Your task to perform on an android device: open wifi settings Image 0: 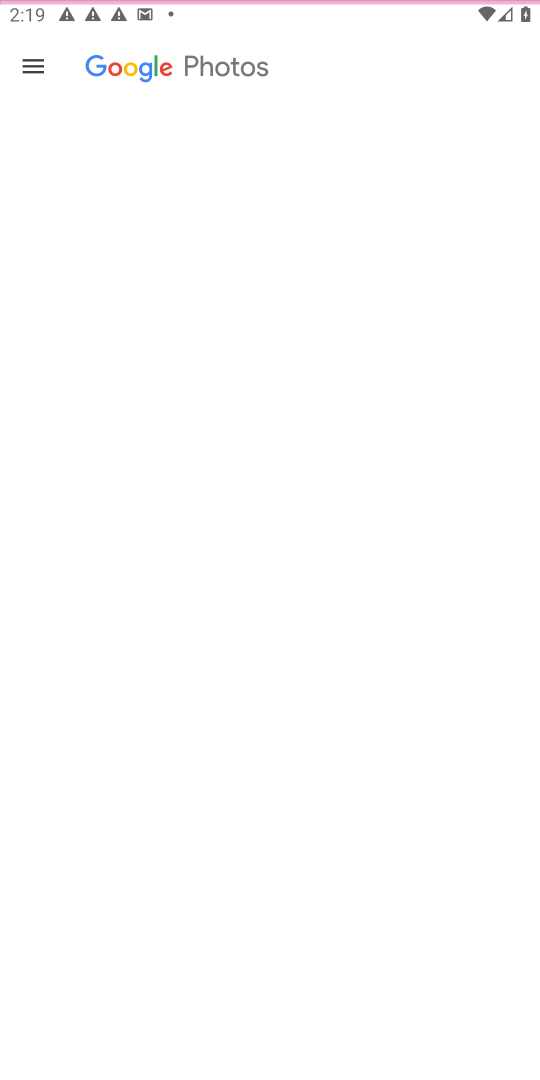
Step 0: click (306, 679)
Your task to perform on an android device: open wifi settings Image 1: 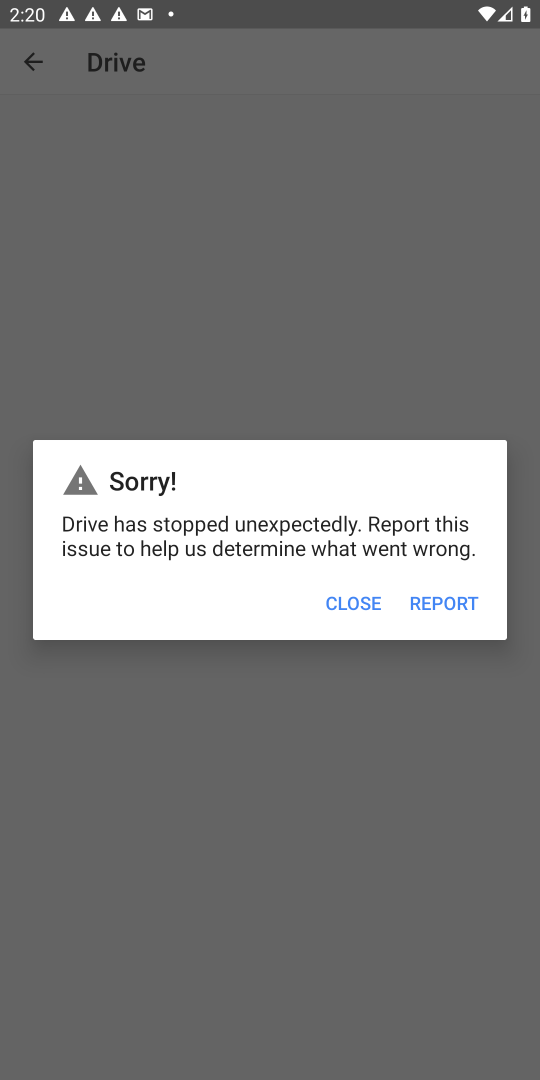
Step 1: click (342, 597)
Your task to perform on an android device: open wifi settings Image 2: 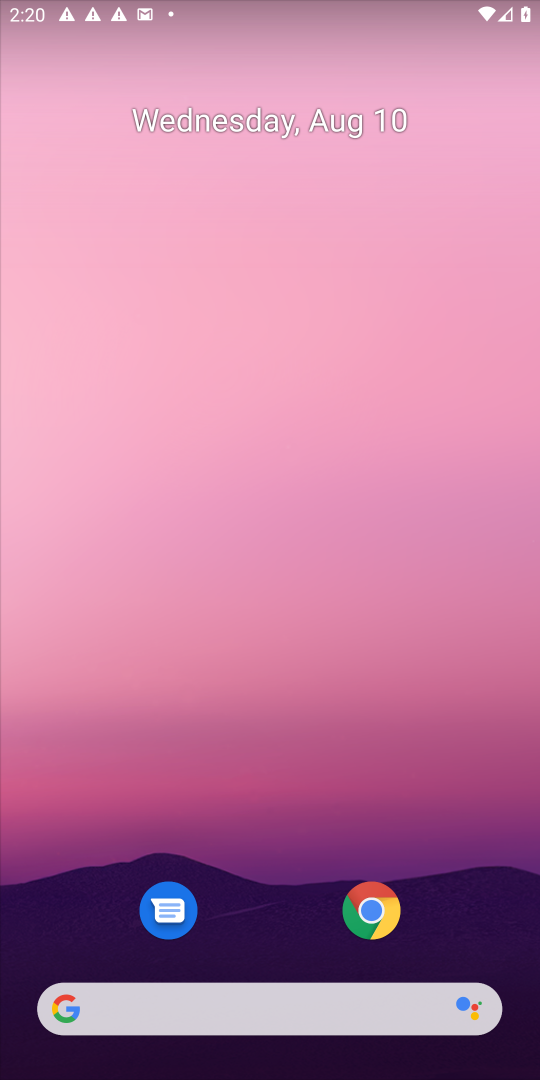
Step 2: task complete